Your task to perform on an android device: Open the Play Movies app and select the watchlist tab. Image 0: 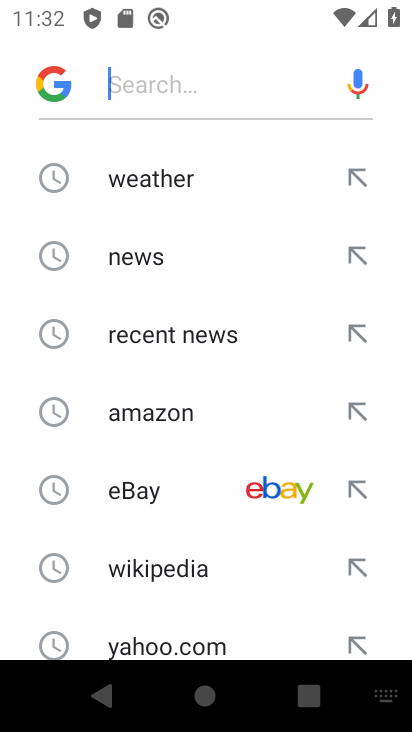
Step 0: press home button
Your task to perform on an android device: Open the Play Movies app and select the watchlist tab. Image 1: 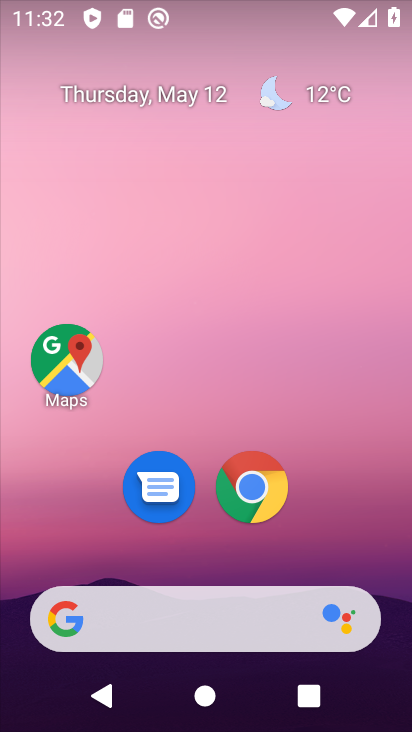
Step 1: drag from (191, 586) to (304, 67)
Your task to perform on an android device: Open the Play Movies app and select the watchlist tab. Image 2: 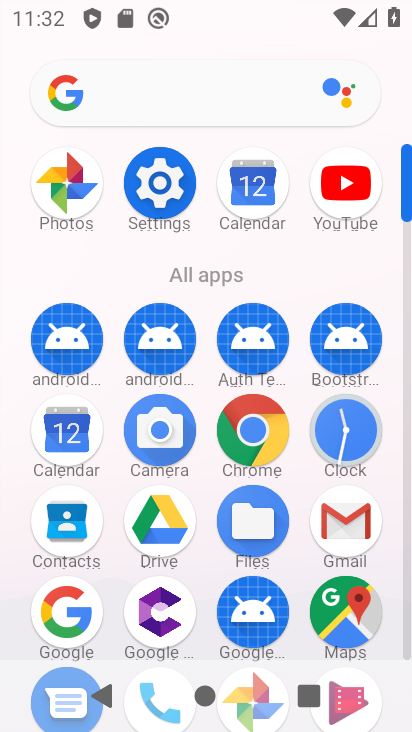
Step 2: drag from (210, 586) to (306, 64)
Your task to perform on an android device: Open the Play Movies app and select the watchlist tab. Image 3: 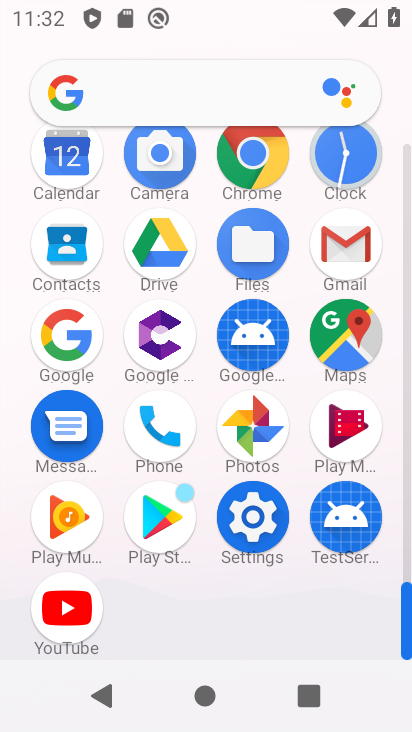
Step 3: click (368, 431)
Your task to perform on an android device: Open the Play Movies app and select the watchlist tab. Image 4: 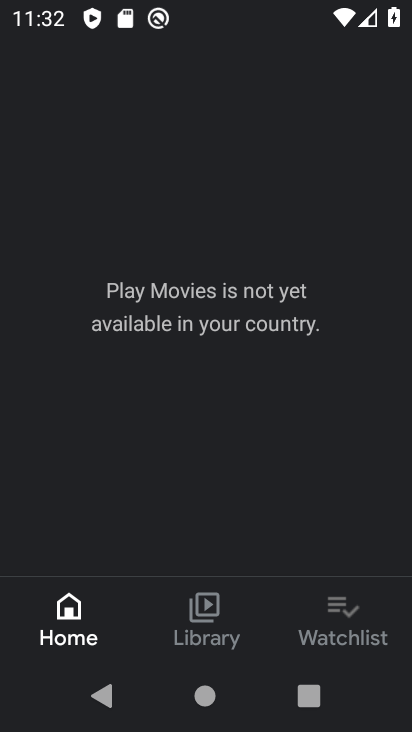
Step 4: drag from (325, 626) to (260, 626)
Your task to perform on an android device: Open the Play Movies app and select the watchlist tab. Image 5: 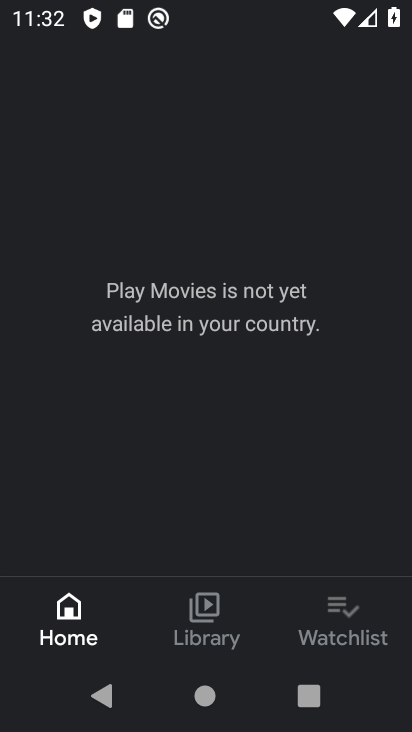
Step 5: click (304, 623)
Your task to perform on an android device: Open the Play Movies app and select the watchlist tab. Image 6: 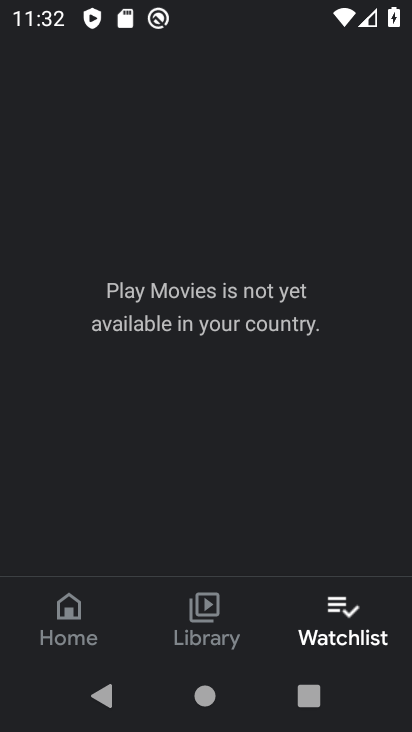
Step 6: task complete